Your task to perform on an android device: open app "The Home Depot" (install if not already installed) and go to login screen Image 0: 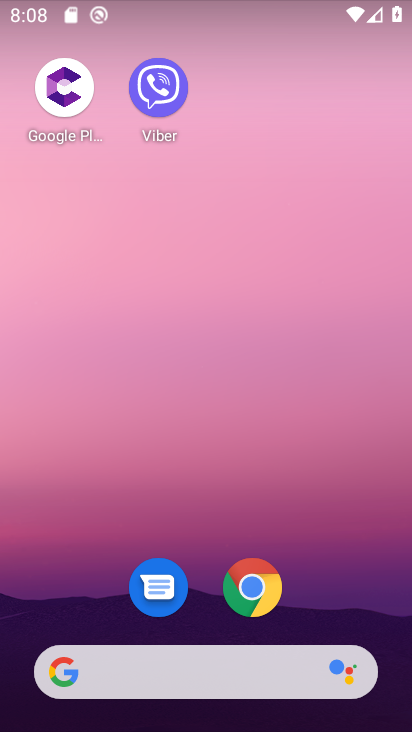
Step 0: drag from (356, 603) to (318, 119)
Your task to perform on an android device: open app "The Home Depot" (install if not already installed) and go to login screen Image 1: 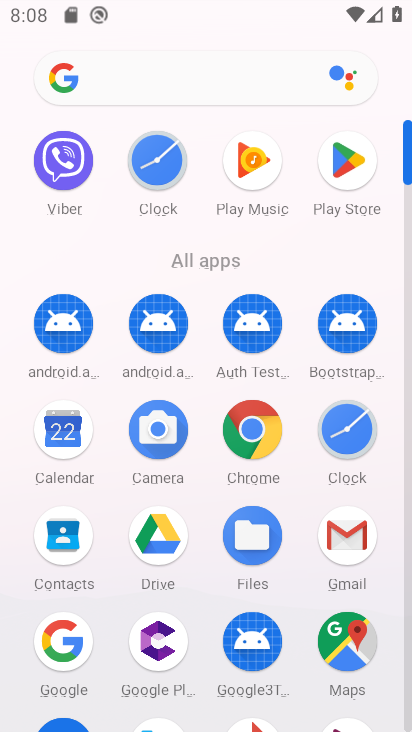
Step 1: click (409, 682)
Your task to perform on an android device: open app "The Home Depot" (install if not already installed) and go to login screen Image 2: 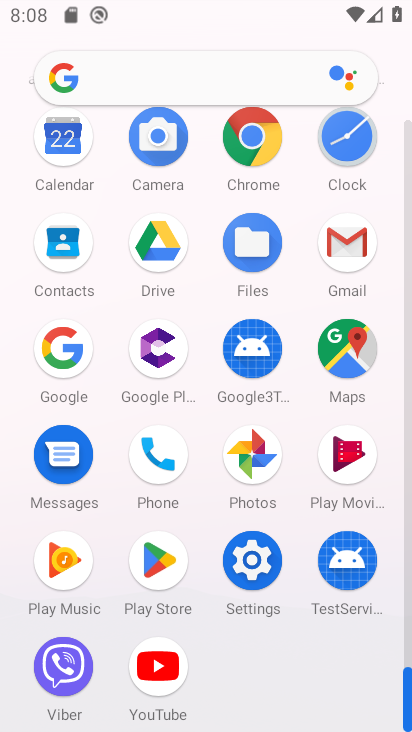
Step 2: click (162, 557)
Your task to perform on an android device: open app "The Home Depot" (install if not already installed) and go to login screen Image 3: 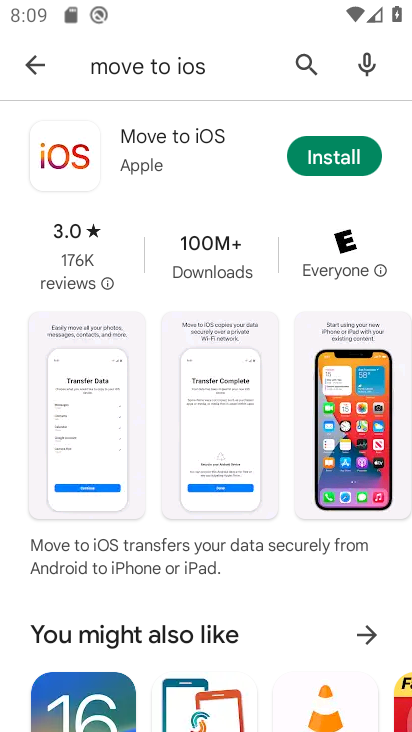
Step 3: click (300, 64)
Your task to perform on an android device: open app "The Home Depot" (install if not already installed) and go to login screen Image 4: 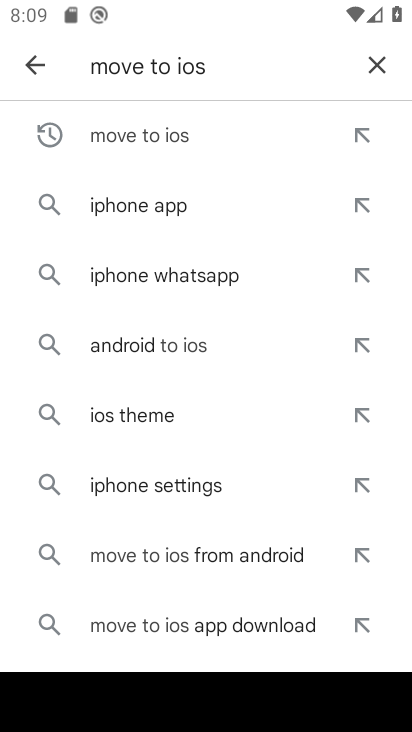
Step 4: click (371, 62)
Your task to perform on an android device: open app "The Home Depot" (install if not already installed) and go to login screen Image 5: 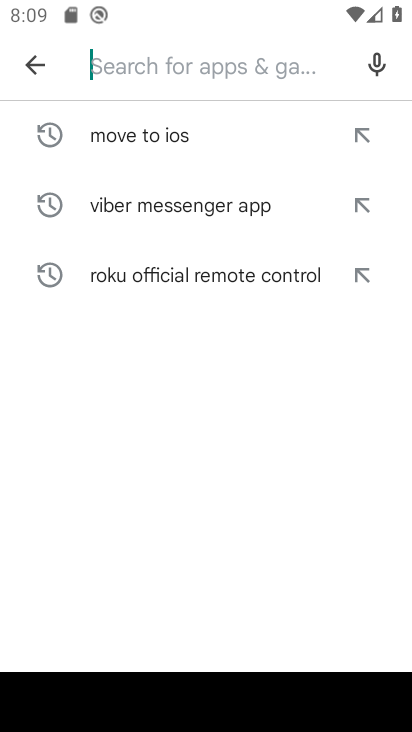
Step 5: type "the home depot"
Your task to perform on an android device: open app "The Home Depot" (install if not already installed) and go to login screen Image 6: 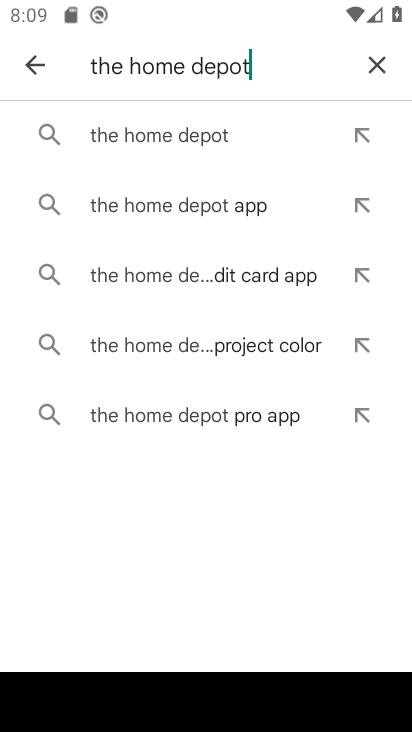
Step 6: click (161, 142)
Your task to perform on an android device: open app "The Home Depot" (install if not already installed) and go to login screen Image 7: 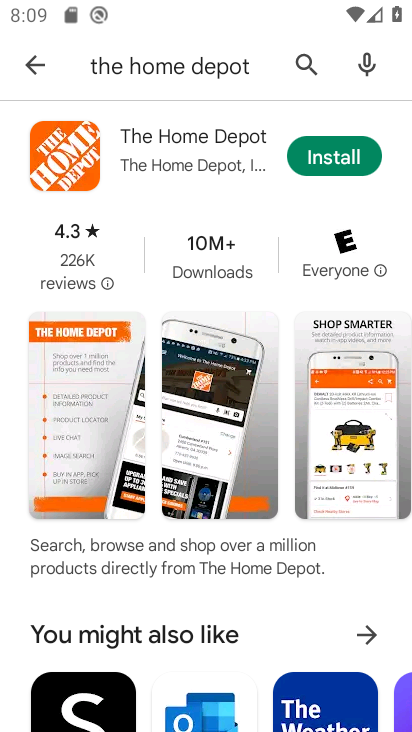
Step 7: click (321, 158)
Your task to perform on an android device: open app "The Home Depot" (install if not already installed) and go to login screen Image 8: 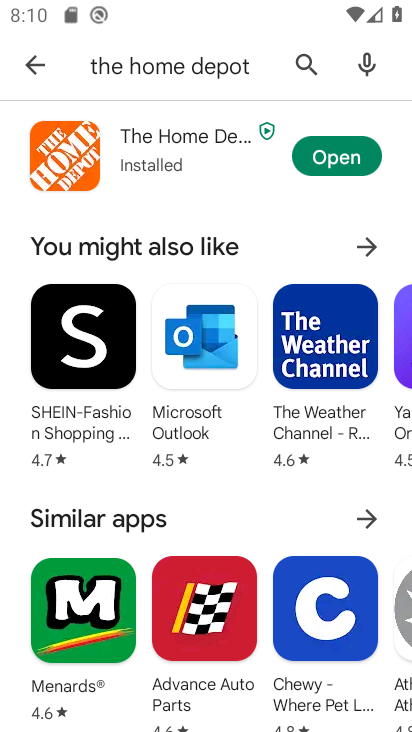
Step 8: click (336, 156)
Your task to perform on an android device: open app "The Home Depot" (install if not already installed) and go to login screen Image 9: 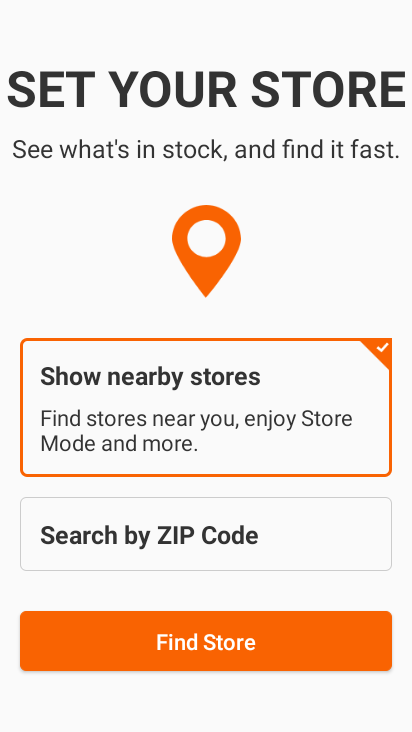
Step 9: task complete